Your task to perform on an android device: Go to network settings Image 0: 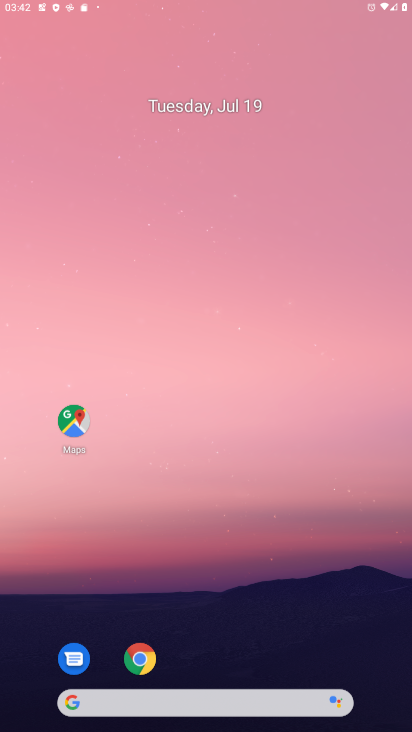
Step 0: press home button
Your task to perform on an android device: Go to network settings Image 1: 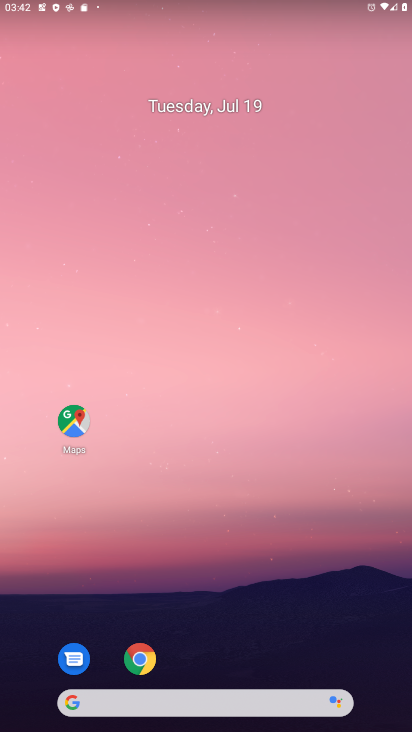
Step 1: drag from (237, 622) to (297, 57)
Your task to perform on an android device: Go to network settings Image 2: 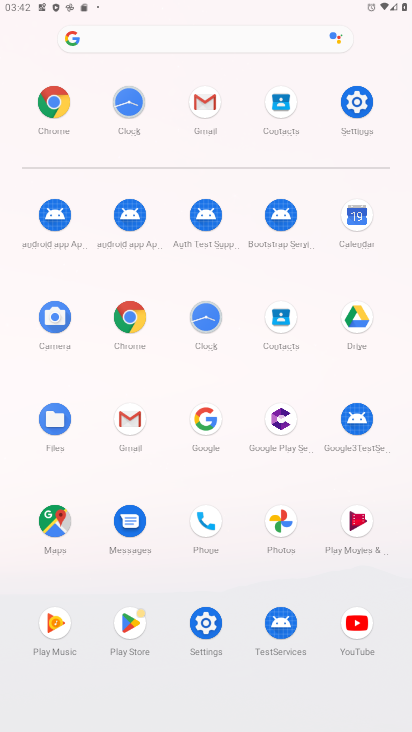
Step 2: click (117, 334)
Your task to perform on an android device: Go to network settings Image 3: 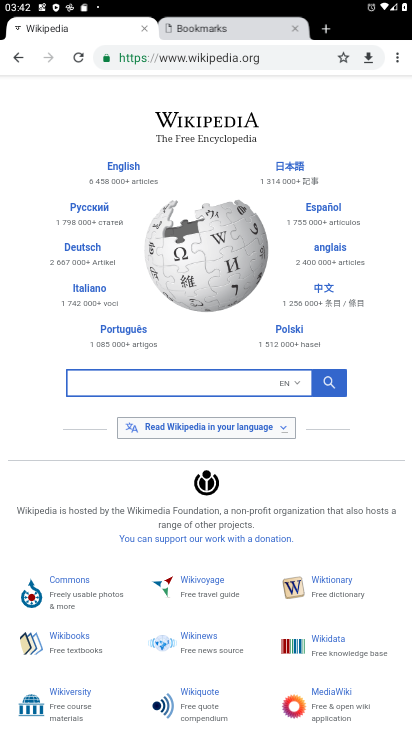
Step 3: press home button
Your task to perform on an android device: Go to network settings Image 4: 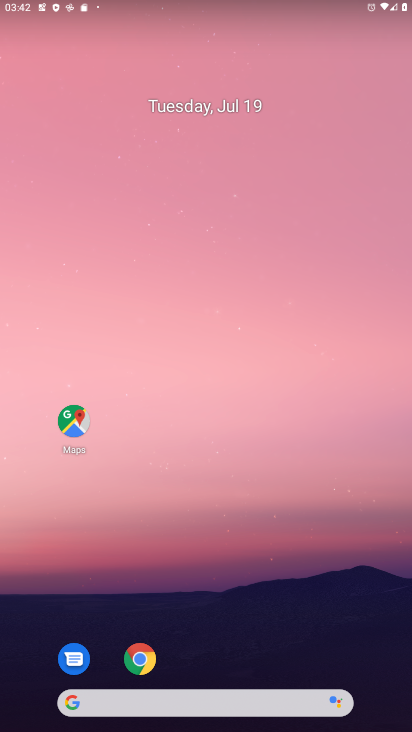
Step 4: drag from (266, 649) to (304, 55)
Your task to perform on an android device: Go to network settings Image 5: 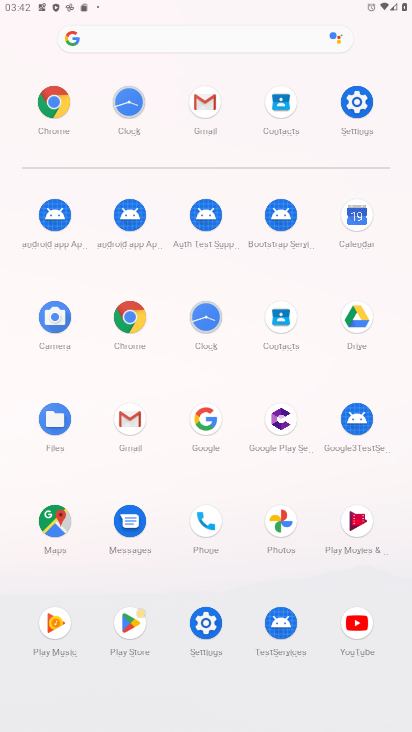
Step 5: click (206, 625)
Your task to perform on an android device: Go to network settings Image 6: 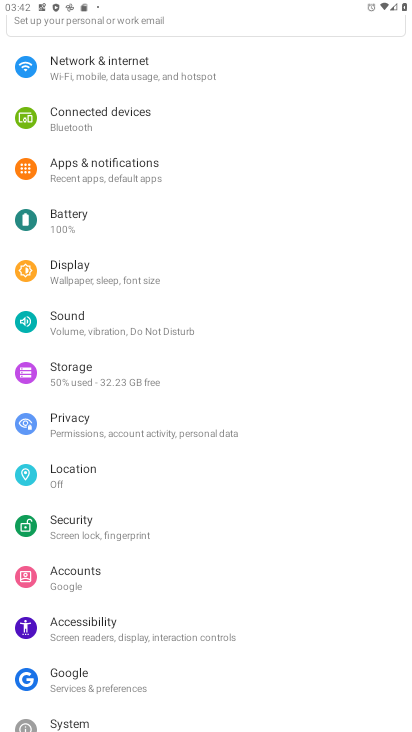
Step 6: click (173, 67)
Your task to perform on an android device: Go to network settings Image 7: 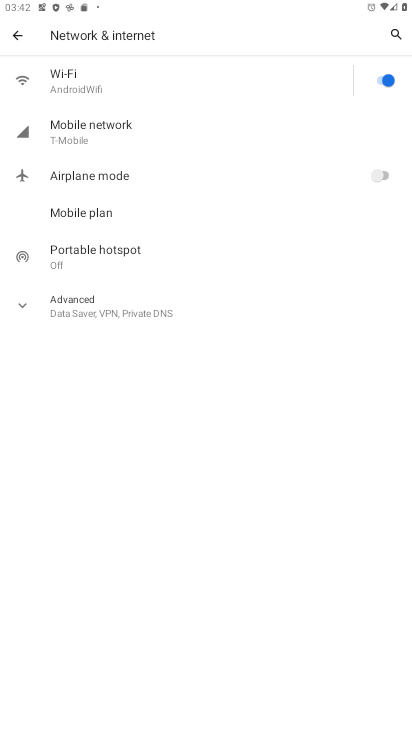
Step 7: task complete